Your task to perform on an android device: Search for hotels in San Francisco Image 0: 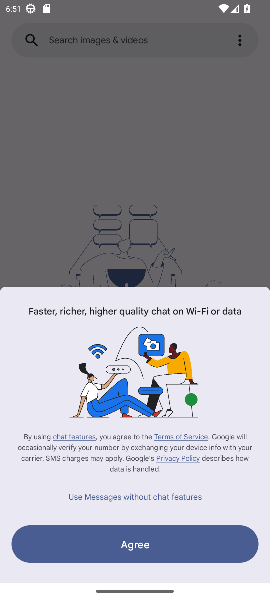
Step 0: press home button
Your task to perform on an android device: Search for hotels in San Francisco Image 1: 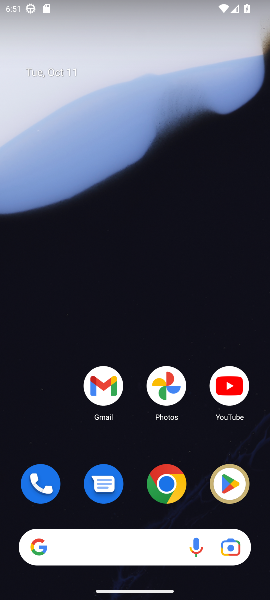
Step 1: click (167, 482)
Your task to perform on an android device: Search for hotels in San Francisco Image 2: 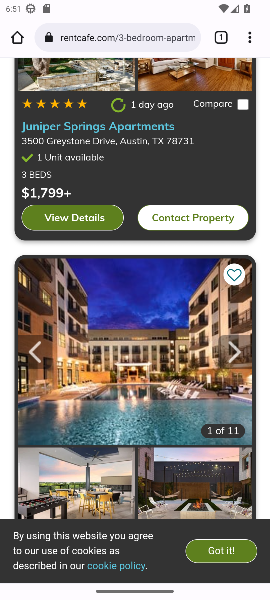
Step 2: click (114, 37)
Your task to perform on an android device: Search for hotels in San Francisco Image 3: 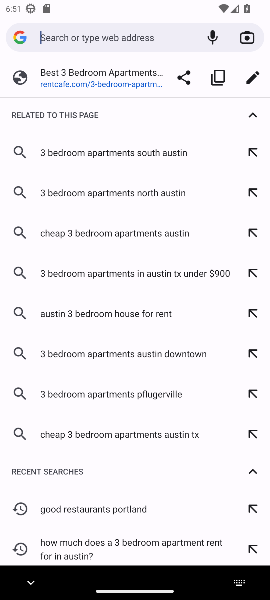
Step 3: type "hotels in San Francisco"
Your task to perform on an android device: Search for hotels in San Francisco Image 4: 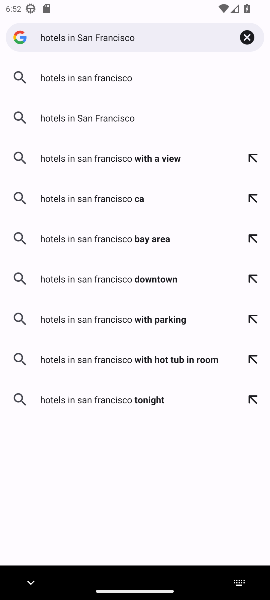
Step 4: click (117, 81)
Your task to perform on an android device: Search for hotels in San Francisco Image 5: 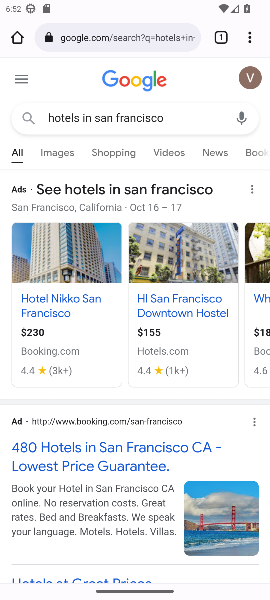
Step 5: task complete